Your task to perform on an android device: Turn off the flashlight Image 0: 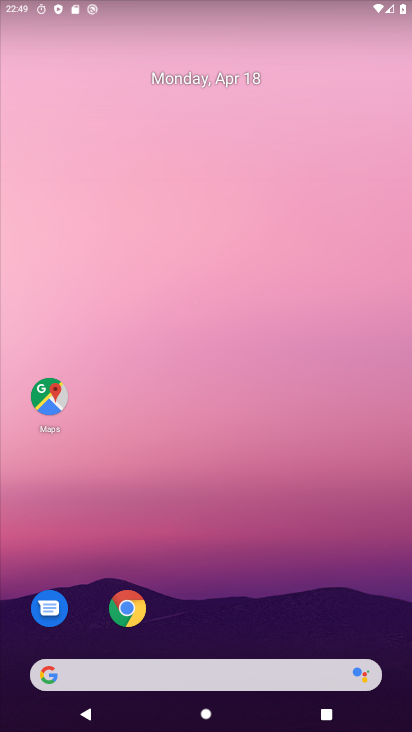
Step 0: drag from (246, 562) to (262, 106)
Your task to perform on an android device: Turn off the flashlight Image 1: 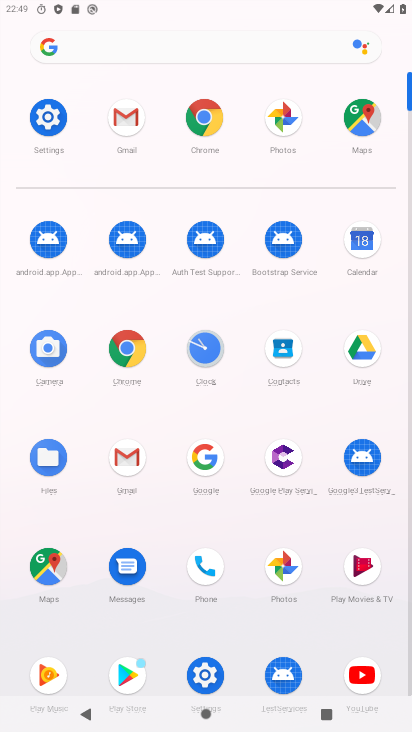
Step 1: click (45, 115)
Your task to perform on an android device: Turn off the flashlight Image 2: 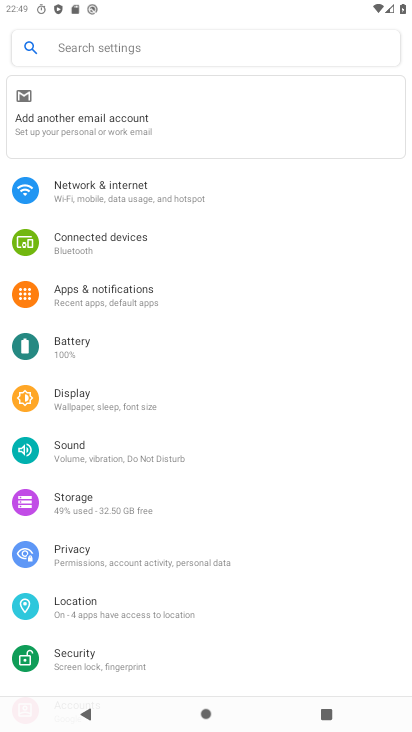
Step 2: click (191, 51)
Your task to perform on an android device: Turn off the flashlight Image 3: 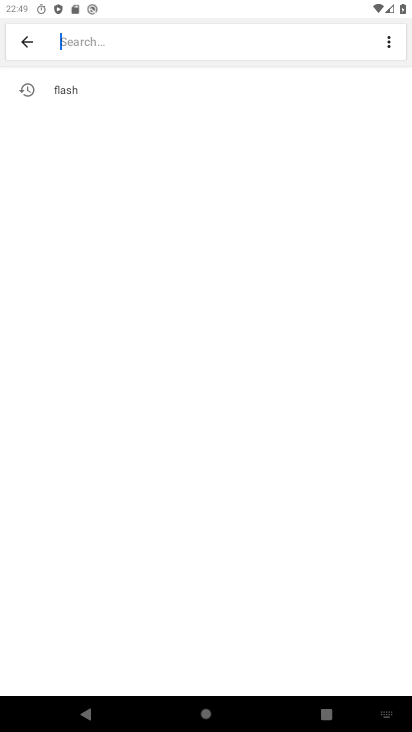
Step 3: click (81, 92)
Your task to perform on an android device: Turn off the flashlight Image 4: 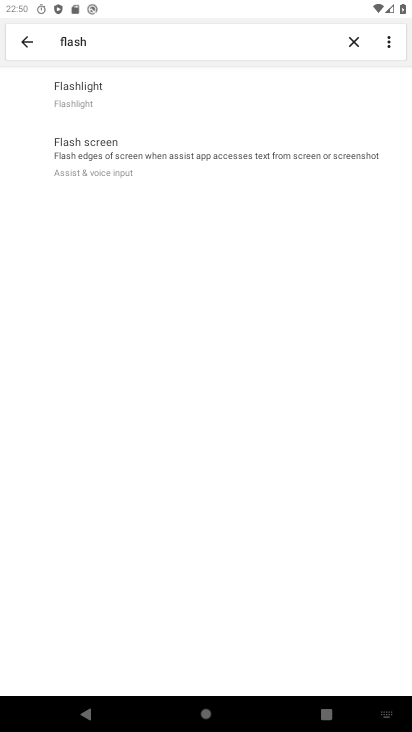
Step 4: task complete